Your task to perform on an android device: open a bookmark in the chrome app Image 0: 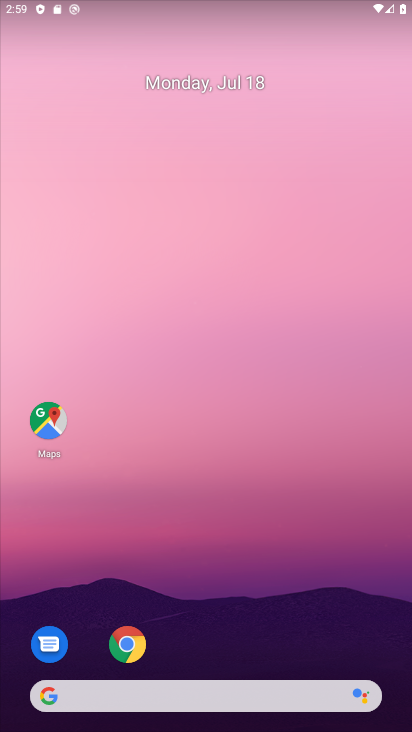
Step 0: press home button
Your task to perform on an android device: open a bookmark in the chrome app Image 1: 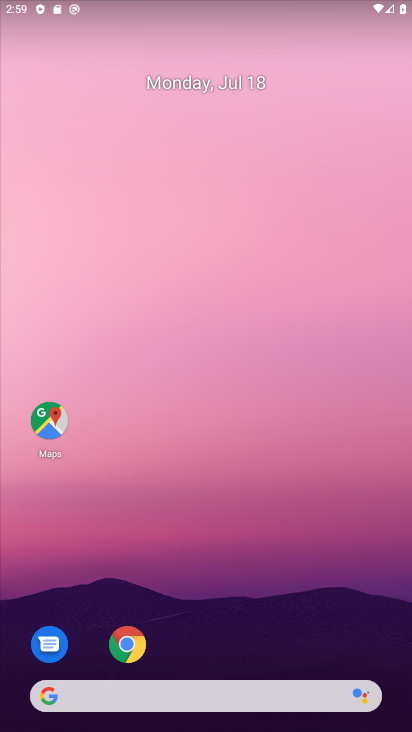
Step 1: drag from (248, 430) to (286, 154)
Your task to perform on an android device: open a bookmark in the chrome app Image 2: 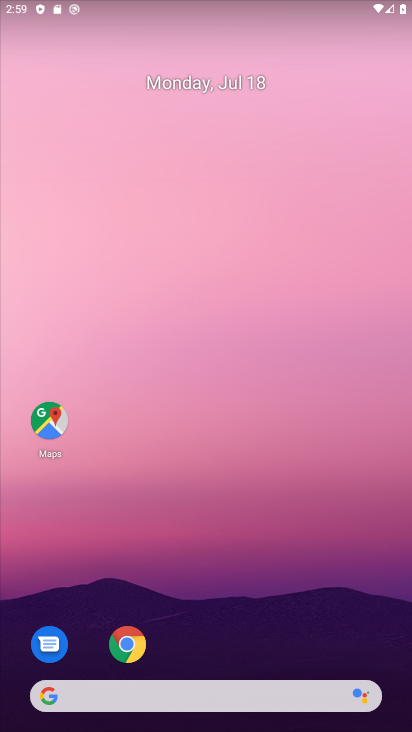
Step 2: drag from (247, 629) to (223, 34)
Your task to perform on an android device: open a bookmark in the chrome app Image 3: 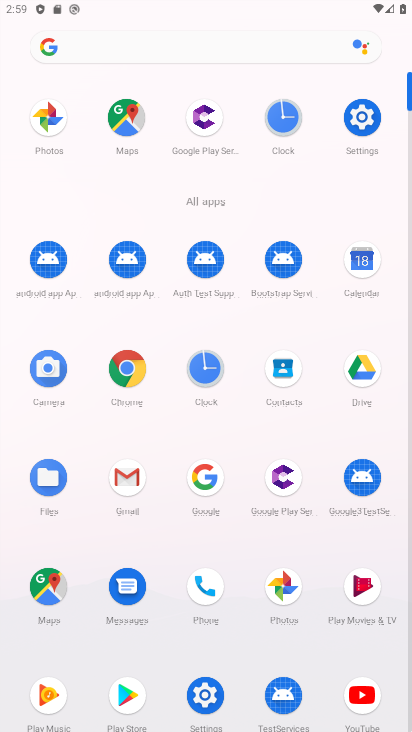
Step 3: click (120, 379)
Your task to perform on an android device: open a bookmark in the chrome app Image 4: 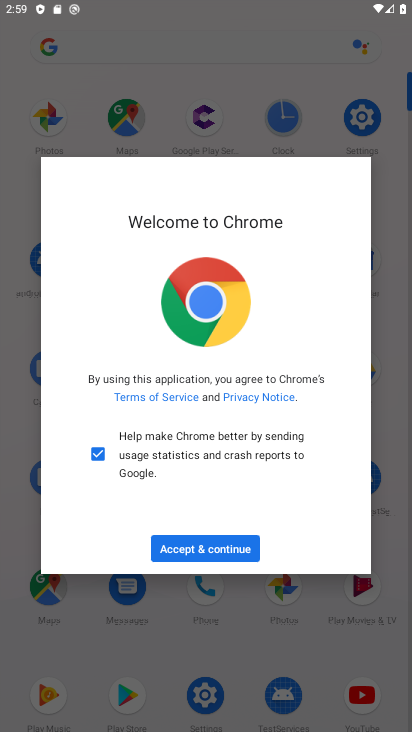
Step 4: click (206, 552)
Your task to perform on an android device: open a bookmark in the chrome app Image 5: 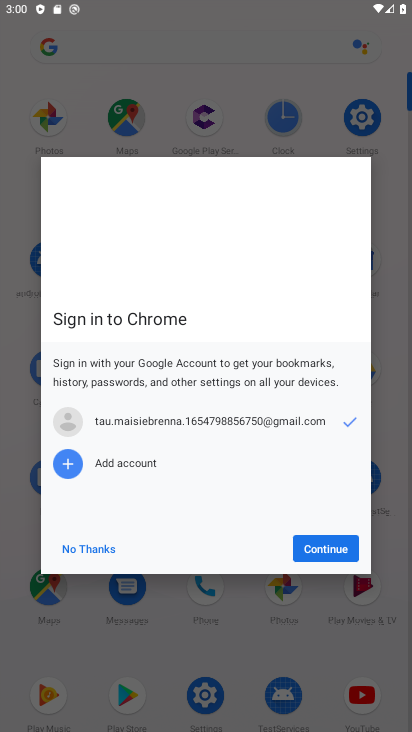
Step 5: click (316, 549)
Your task to perform on an android device: open a bookmark in the chrome app Image 6: 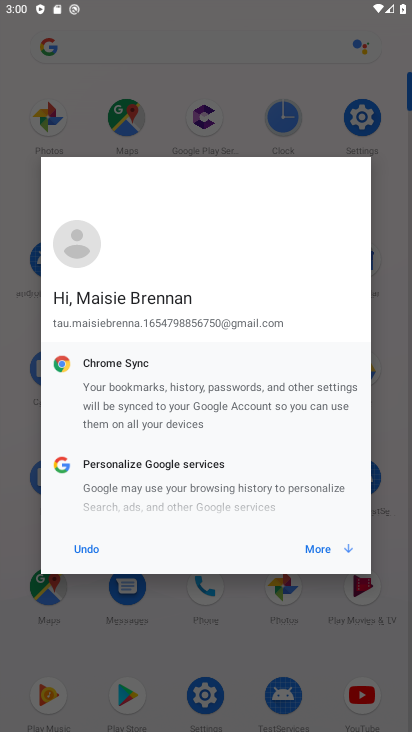
Step 6: click (314, 551)
Your task to perform on an android device: open a bookmark in the chrome app Image 7: 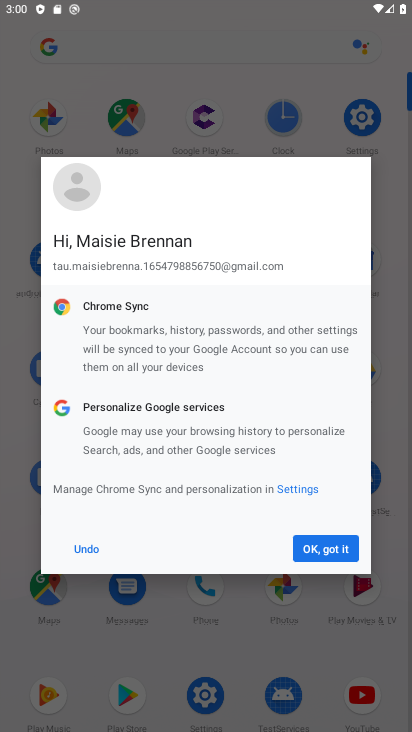
Step 7: click (314, 550)
Your task to perform on an android device: open a bookmark in the chrome app Image 8: 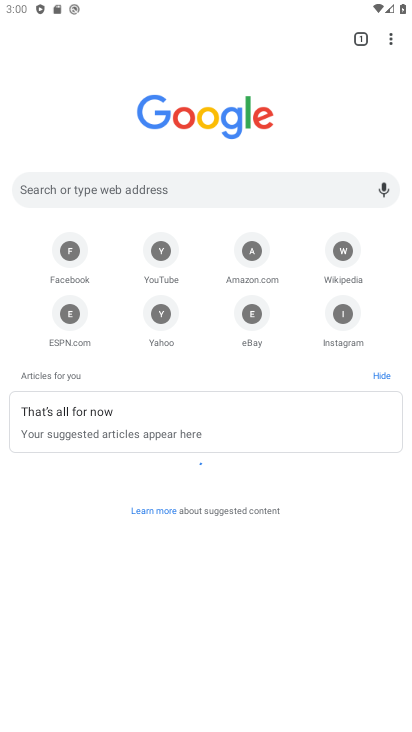
Step 8: drag from (390, 42) to (275, 144)
Your task to perform on an android device: open a bookmark in the chrome app Image 9: 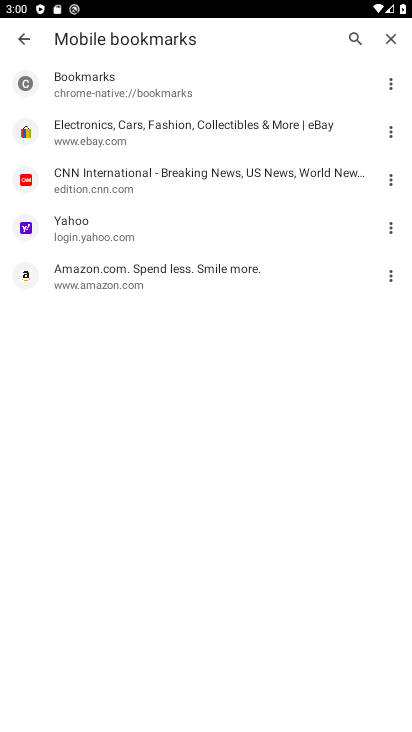
Step 9: click (123, 143)
Your task to perform on an android device: open a bookmark in the chrome app Image 10: 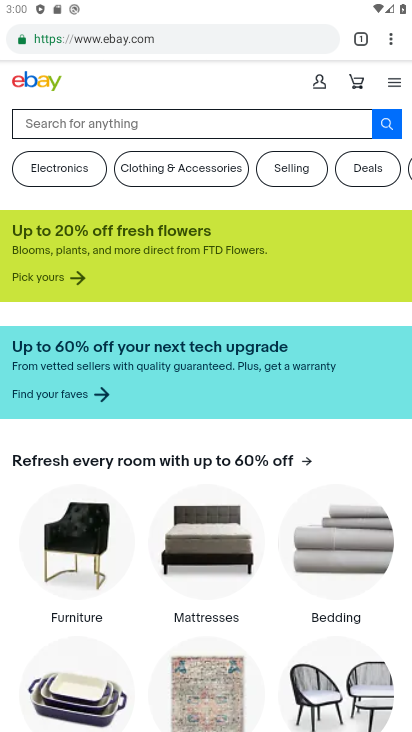
Step 10: task complete